Your task to perform on an android device: uninstall "Google Find My Device" Image 0: 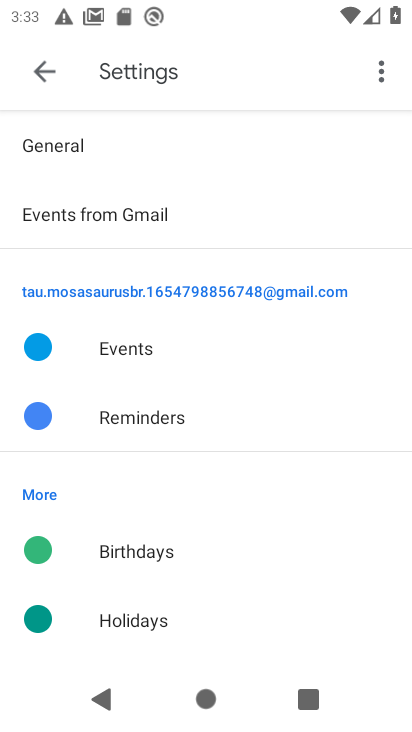
Step 0: press home button
Your task to perform on an android device: uninstall "Google Find My Device" Image 1: 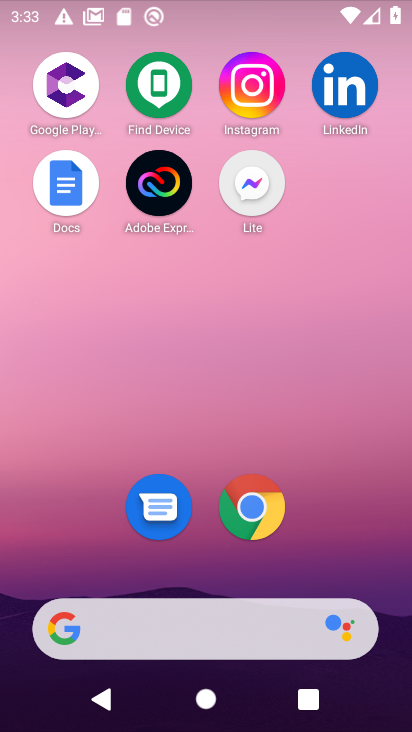
Step 1: drag from (219, 330) to (231, 12)
Your task to perform on an android device: uninstall "Google Find My Device" Image 2: 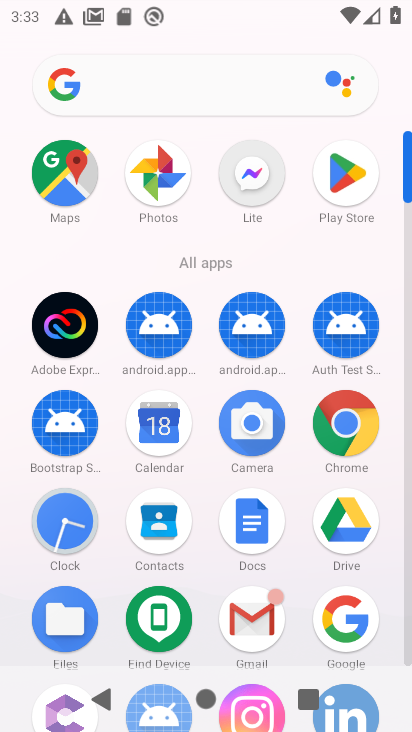
Step 2: click (351, 191)
Your task to perform on an android device: uninstall "Google Find My Device" Image 3: 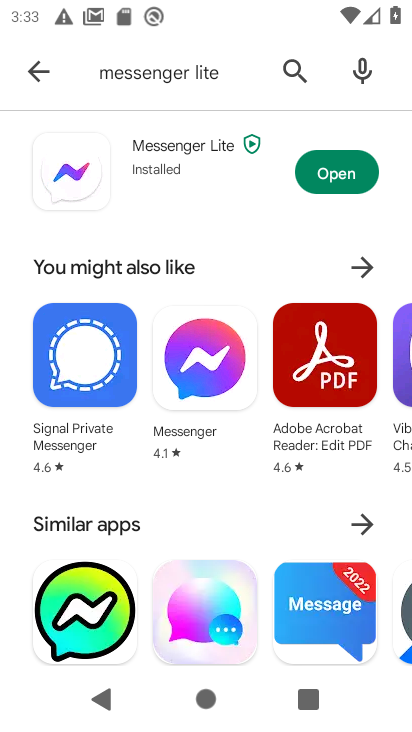
Step 3: click (302, 65)
Your task to perform on an android device: uninstall "Google Find My Device" Image 4: 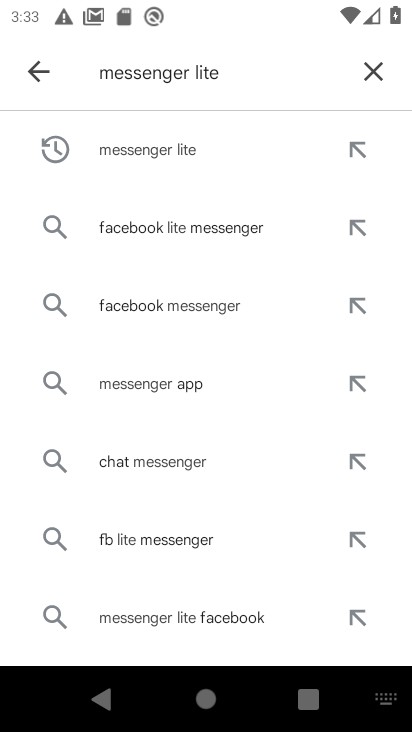
Step 4: click (367, 70)
Your task to perform on an android device: uninstall "Google Find My Device" Image 5: 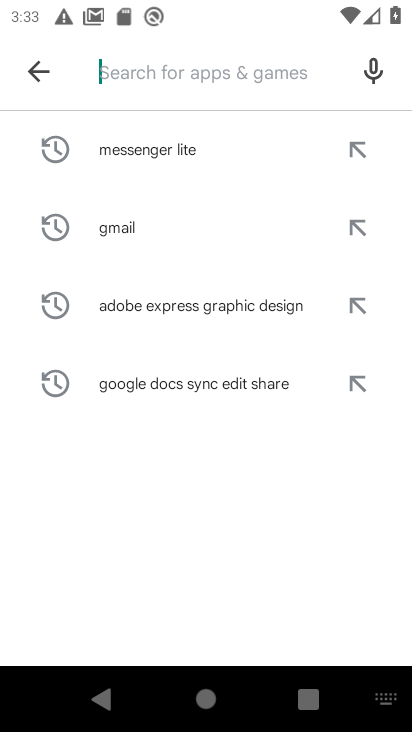
Step 5: click (122, 63)
Your task to perform on an android device: uninstall "Google Find My Device" Image 6: 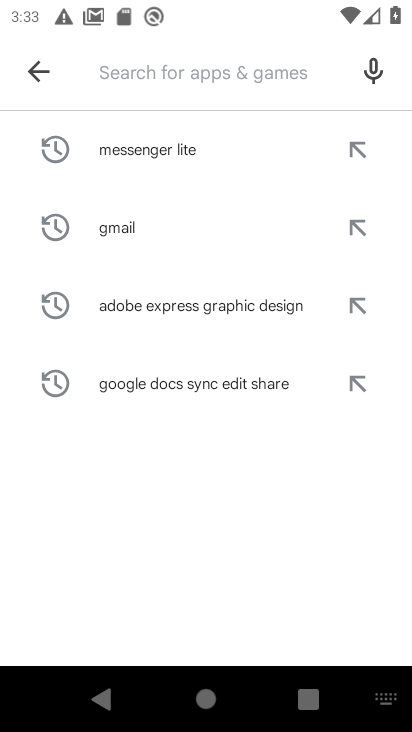
Step 6: type "Google Find My Device"
Your task to perform on an android device: uninstall "Google Find My Device" Image 7: 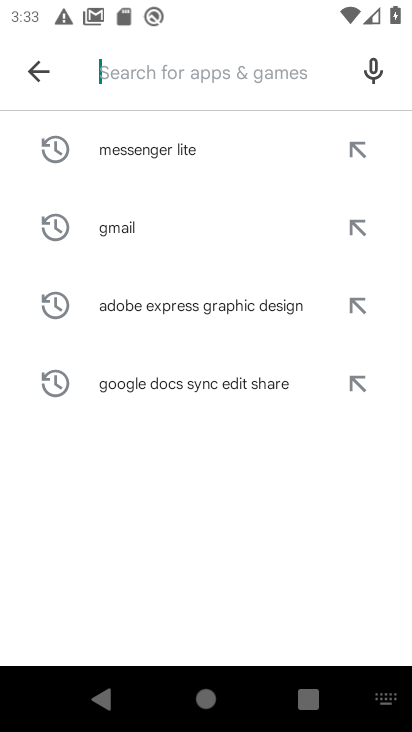
Step 7: click (162, 448)
Your task to perform on an android device: uninstall "Google Find My Device" Image 8: 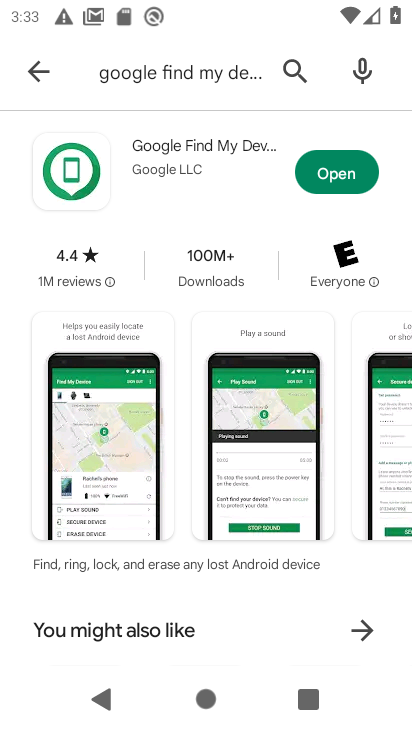
Step 8: click (157, 169)
Your task to perform on an android device: uninstall "Google Find My Device" Image 9: 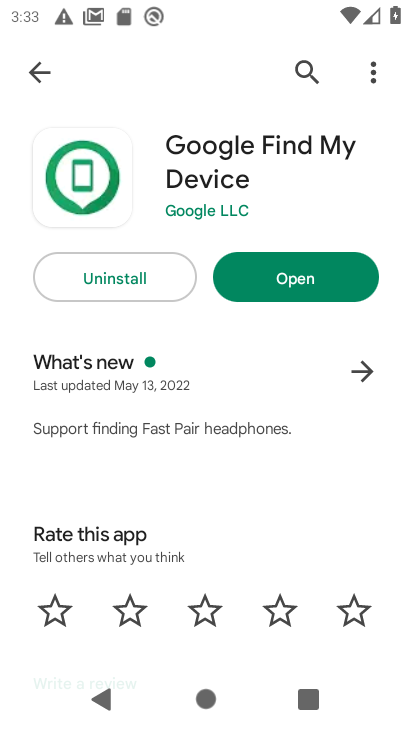
Step 9: click (126, 270)
Your task to perform on an android device: uninstall "Google Find My Device" Image 10: 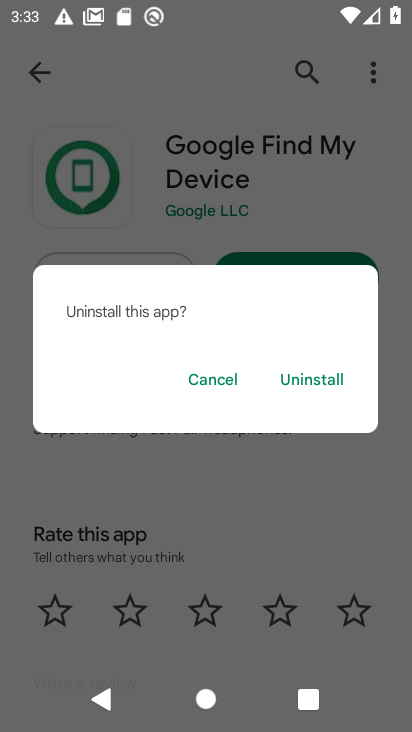
Step 10: click (307, 371)
Your task to perform on an android device: uninstall "Google Find My Device" Image 11: 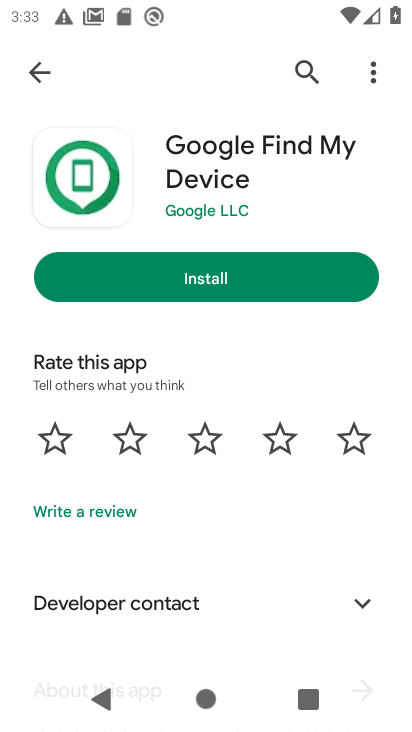
Step 11: task complete